Your task to perform on an android device: Show me popular games on the Play Store Image 0: 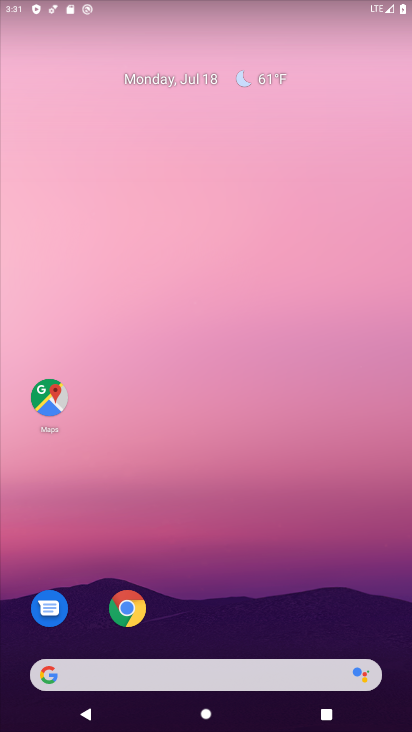
Step 0: drag from (284, 452) to (238, 53)
Your task to perform on an android device: Show me popular games on the Play Store Image 1: 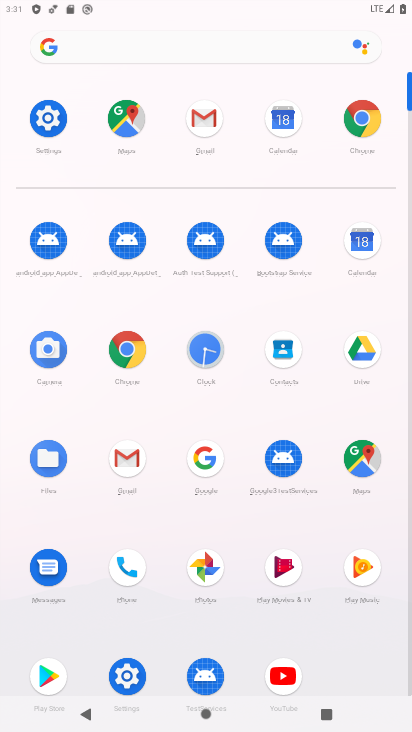
Step 1: click (49, 676)
Your task to perform on an android device: Show me popular games on the Play Store Image 2: 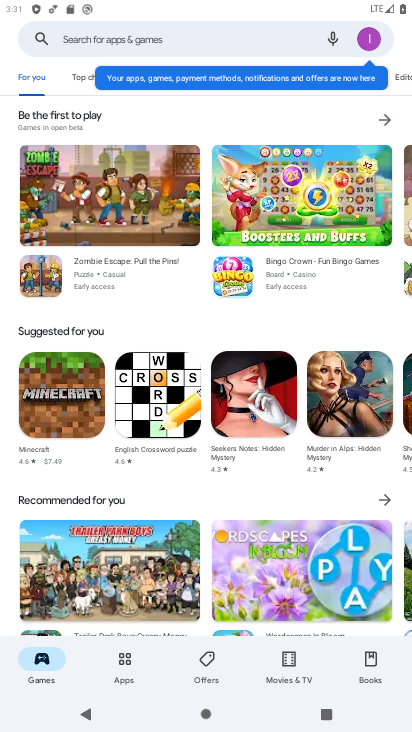
Step 2: task complete